Your task to perform on an android device: What's the weather going to be this weekend? Image 0: 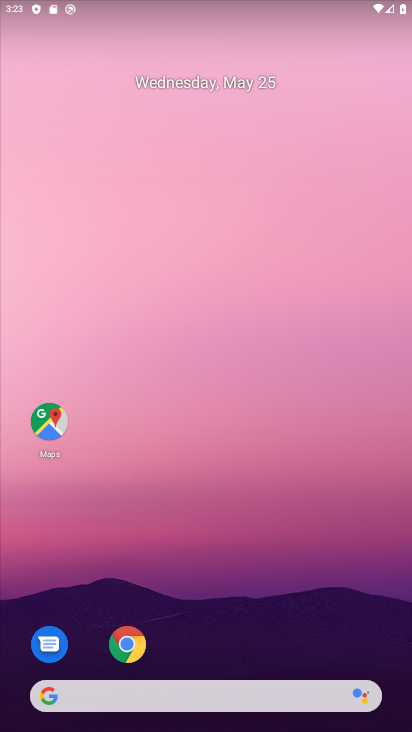
Step 0: click (99, 699)
Your task to perform on an android device: What's the weather going to be this weekend? Image 1: 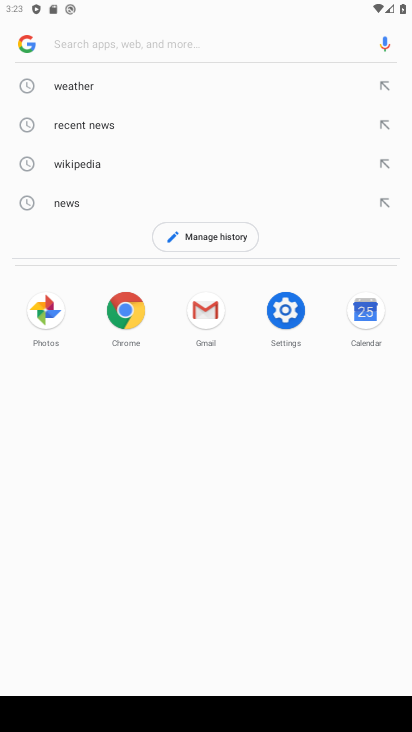
Step 1: click (57, 90)
Your task to perform on an android device: What's the weather going to be this weekend? Image 2: 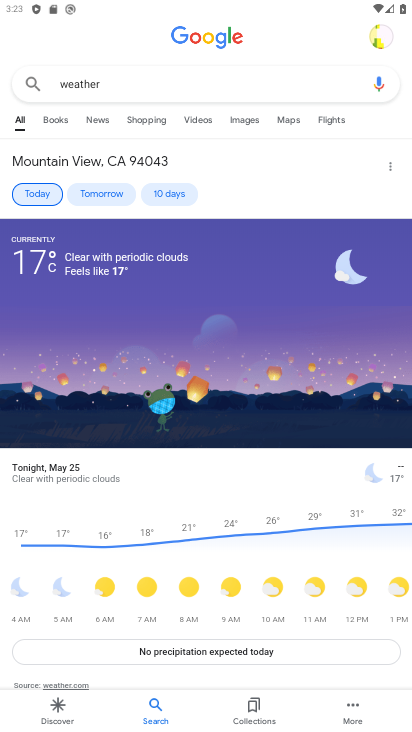
Step 2: click (178, 202)
Your task to perform on an android device: What's the weather going to be this weekend? Image 3: 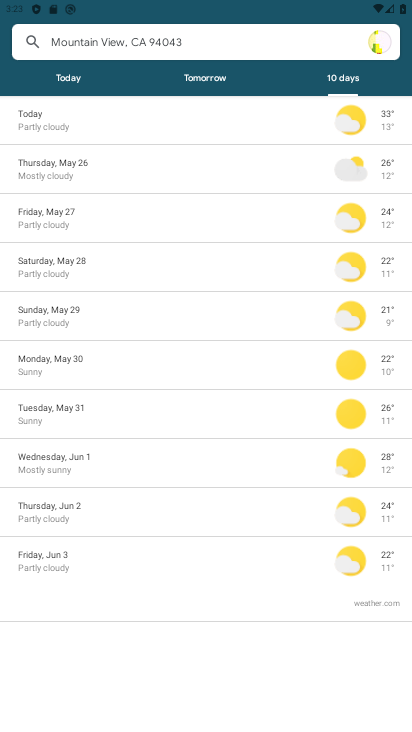
Step 3: task complete